Your task to perform on an android device: change the clock display to analog Image 0: 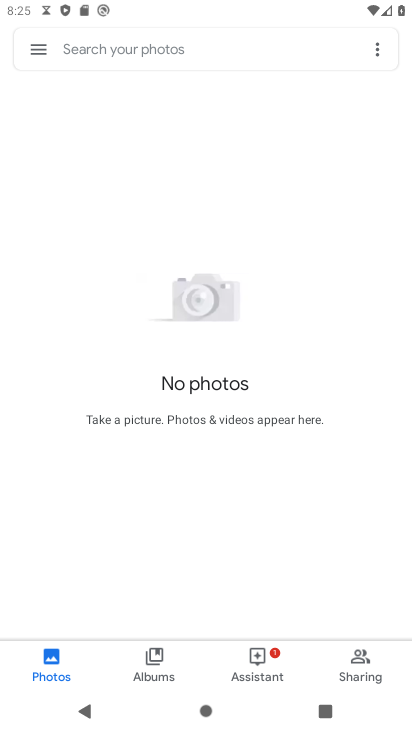
Step 0: press home button
Your task to perform on an android device: change the clock display to analog Image 1: 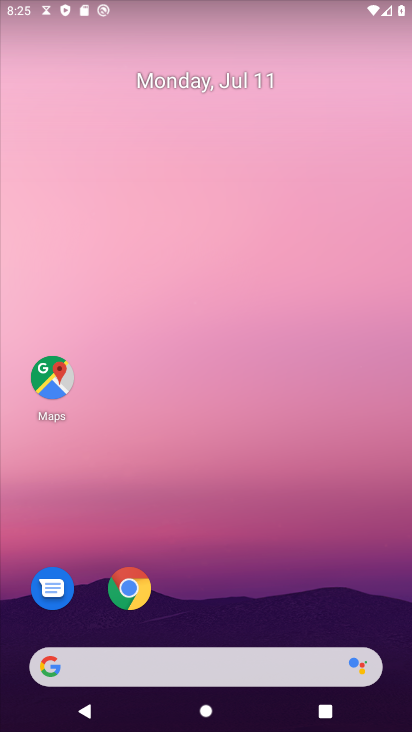
Step 1: drag from (351, 562) to (386, 35)
Your task to perform on an android device: change the clock display to analog Image 2: 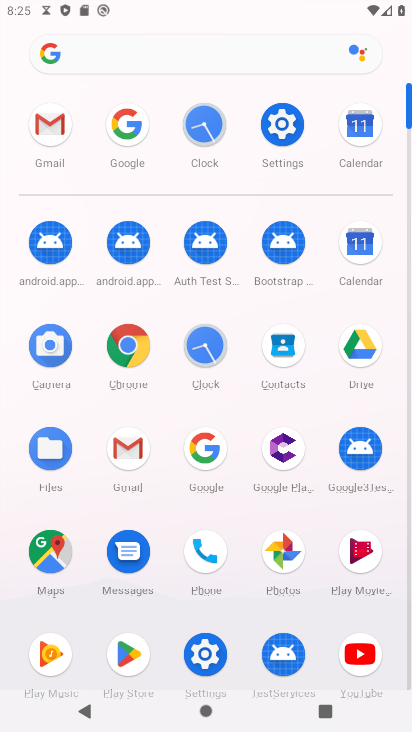
Step 2: click (193, 334)
Your task to perform on an android device: change the clock display to analog Image 3: 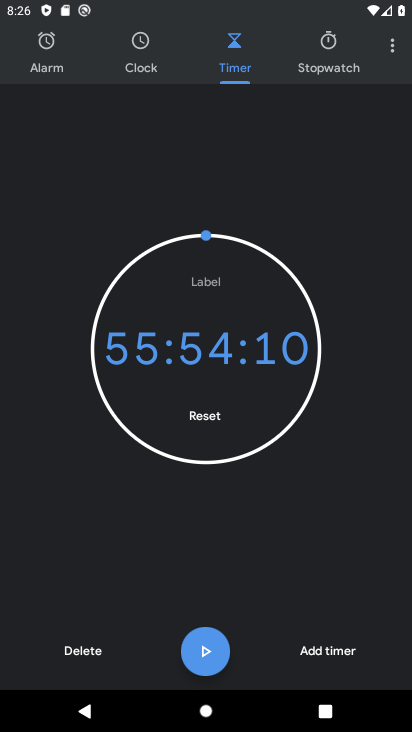
Step 3: click (394, 54)
Your task to perform on an android device: change the clock display to analog Image 4: 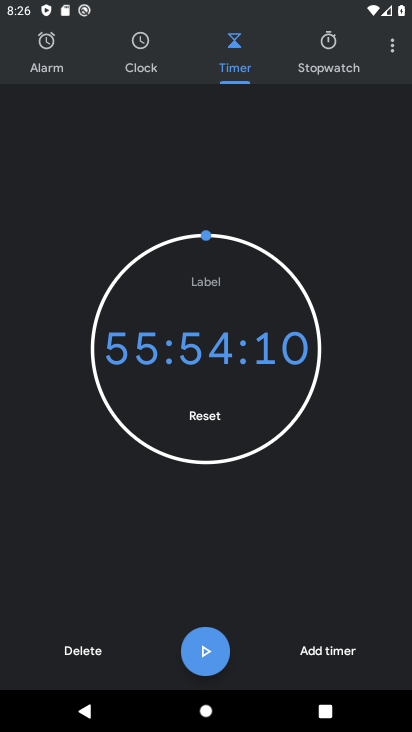
Step 4: click (388, 60)
Your task to perform on an android device: change the clock display to analog Image 5: 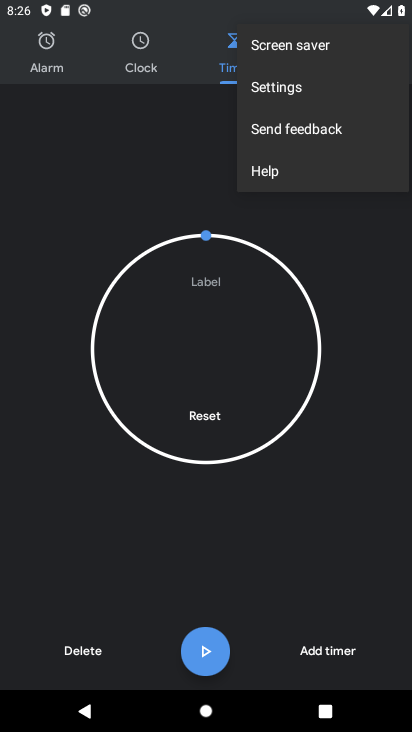
Step 5: click (271, 82)
Your task to perform on an android device: change the clock display to analog Image 6: 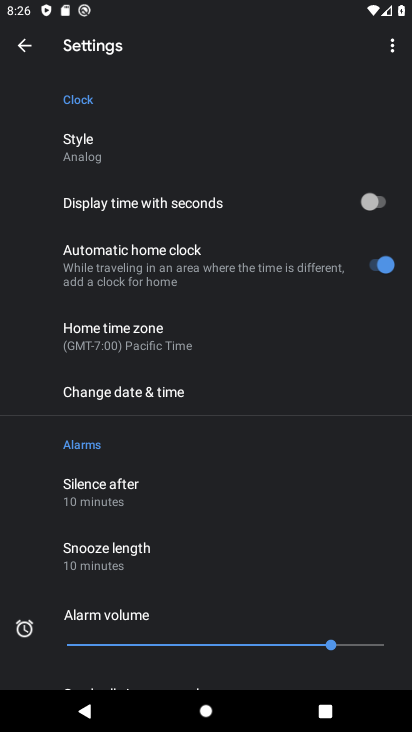
Step 6: click (94, 153)
Your task to perform on an android device: change the clock display to analog Image 7: 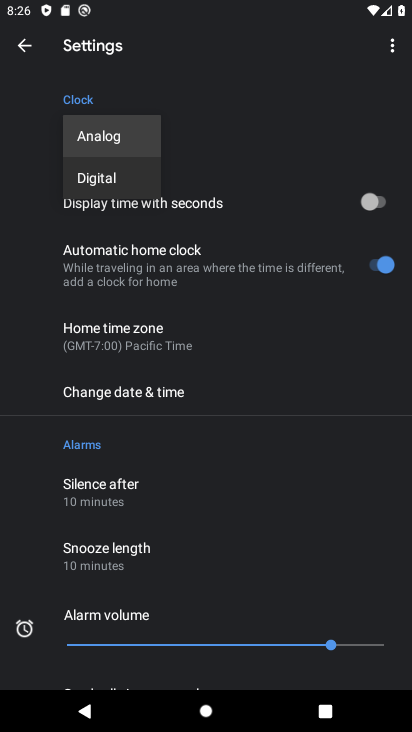
Step 7: click (122, 136)
Your task to perform on an android device: change the clock display to analog Image 8: 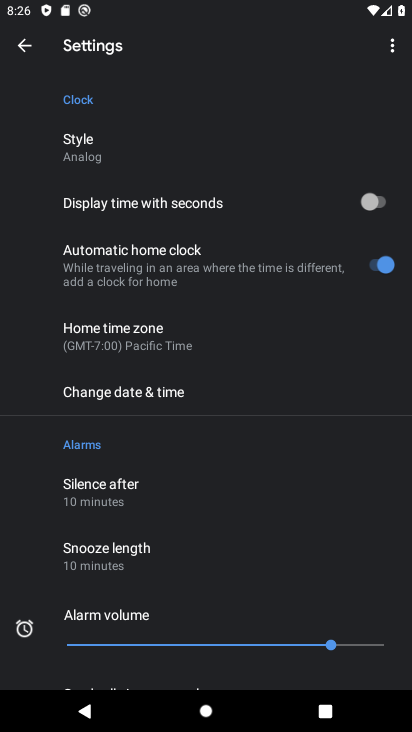
Step 8: task complete